Your task to perform on an android device: open app "Microsoft Excel" Image 0: 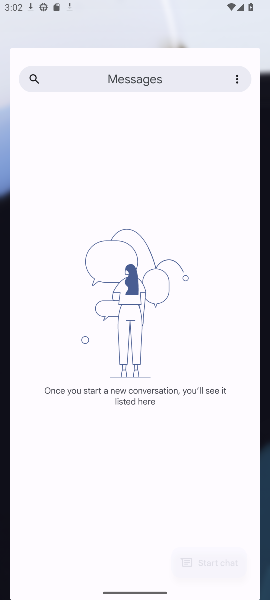
Step 0: click (134, 81)
Your task to perform on an android device: open app "Microsoft Excel" Image 1: 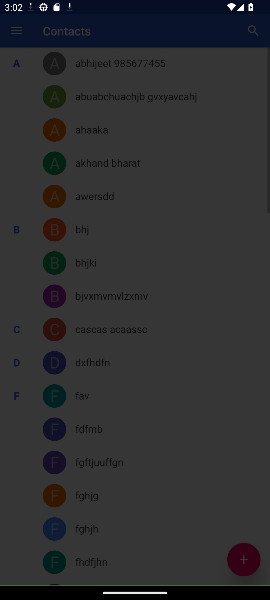
Step 1: press home button
Your task to perform on an android device: open app "Microsoft Excel" Image 2: 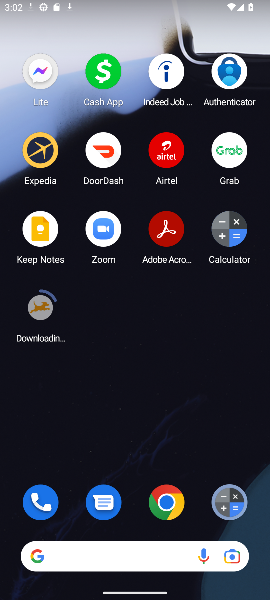
Step 2: drag from (141, 514) to (158, 117)
Your task to perform on an android device: open app "Microsoft Excel" Image 3: 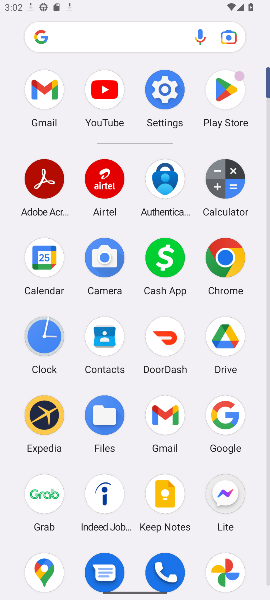
Step 3: click (234, 99)
Your task to perform on an android device: open app "Microsoft Excel" Image 4: 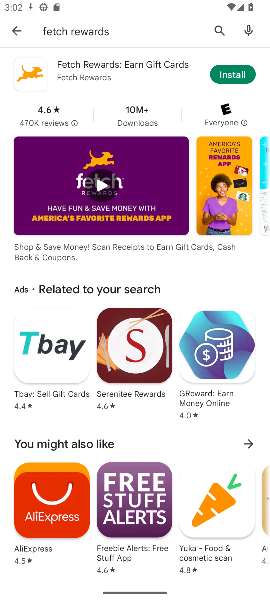
Step 4: click (218, 35)
Your task to perform on an android device: open app "Microsoft Excel" Image 5: 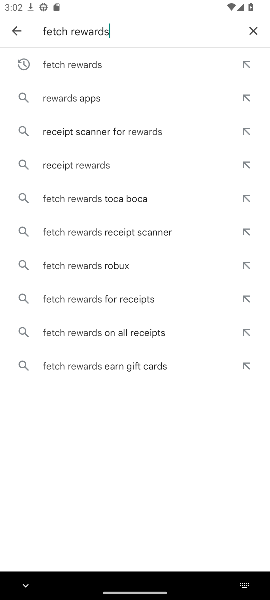
Step 5: click (252, 27)
Your task to perform on an android device: open app "Microsoft Excel" Image 6: 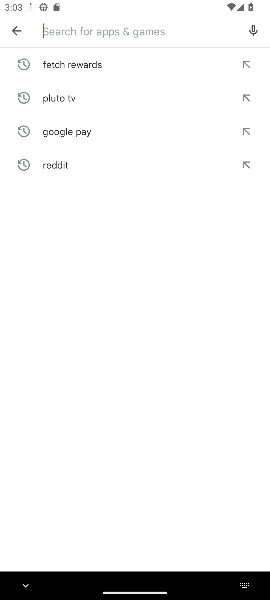
Step 6: type "microfot excel"
Your task to perform on an android device: open app "Microsoft Excel" Image 7: 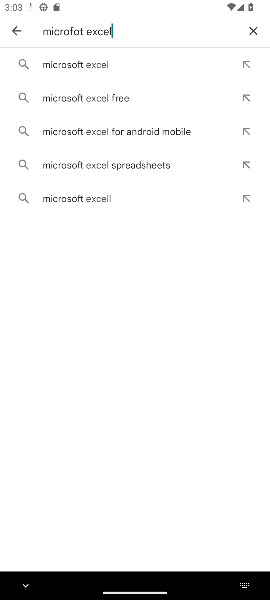
Step 7: click (71, 75)
Your task to perform on an android device: open app "Microsoft Excel" Image 8: 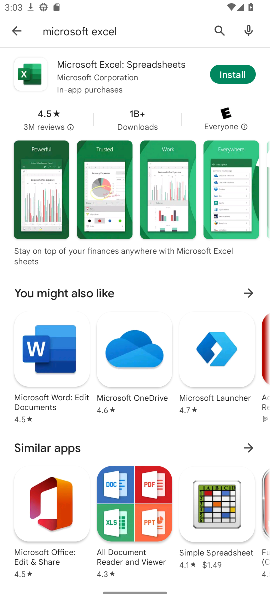
Step 8: click (223, 63)
Your task to perform on an android device: open app "Microsoft Excel" Image 9: 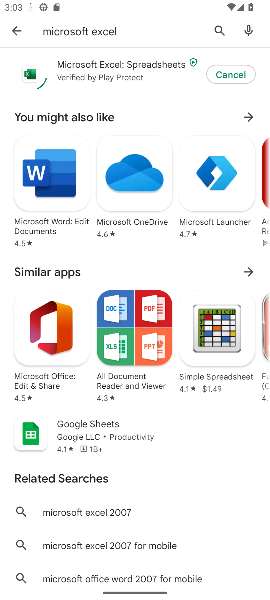
Step 9: task complete